Your task to perform on an android device: Open Youtube and go to "Your channel" Image 0: 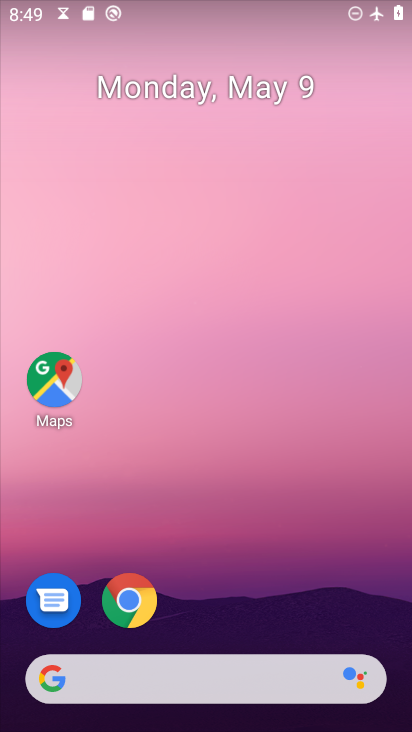
Step 0: drag from (246, 547) to (245, 31)
Your task to perform on an android device: Open Youtube and go to "Your channel" Image 1: 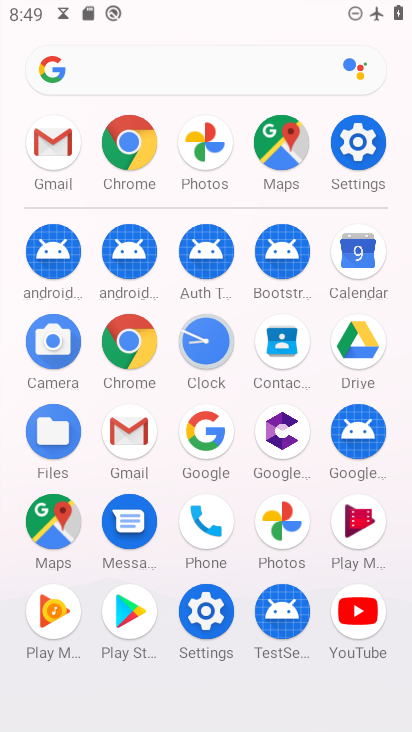
Step 1: click (353, 611)
Your task to perform on an android device: Open Youtube and go to "Your channel" Image 2: 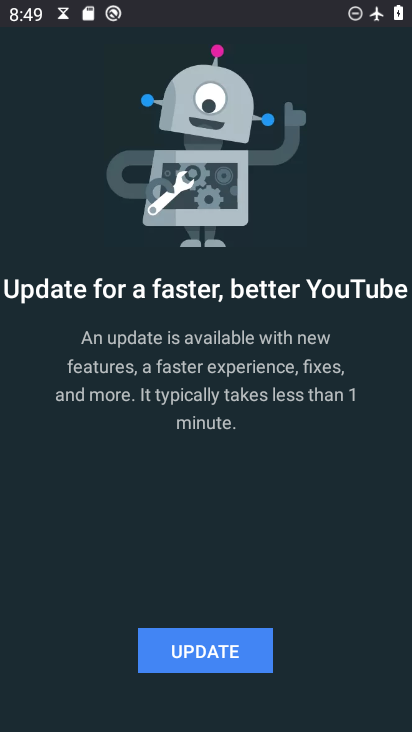
Step 2: click (264, 642)
Your task to perform on an android device: Open Youtube and go to "Your channel" Image 3: 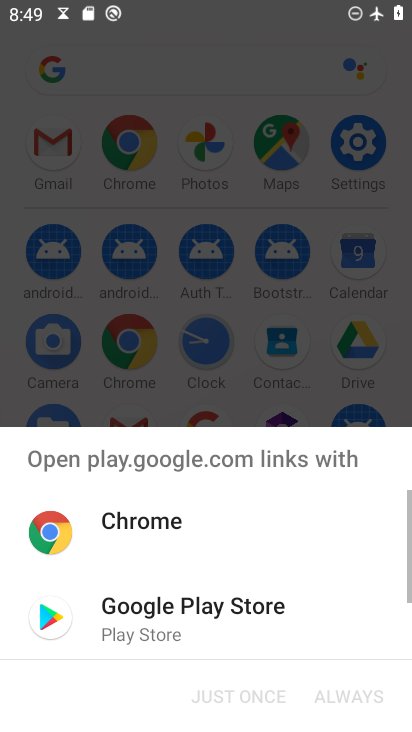
Step 3: click (199, 616)
Your task to perform on an android device: Open Youtube and go to "Your channel" Image 4: 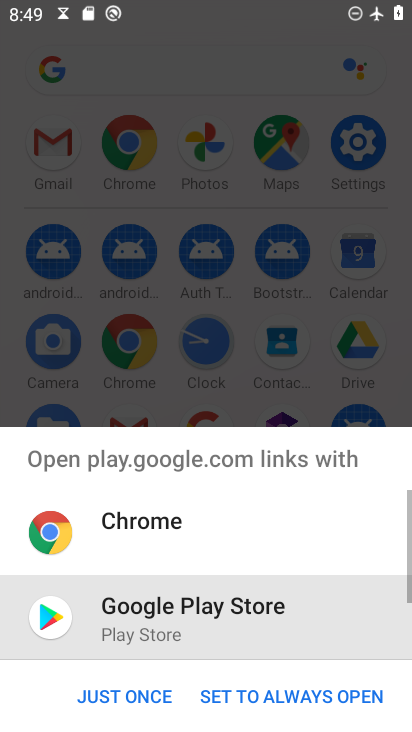
Step 4: click (124, 701)
Your task to perform on an android device: Open Youtube and go to "Your channel" Image 5: 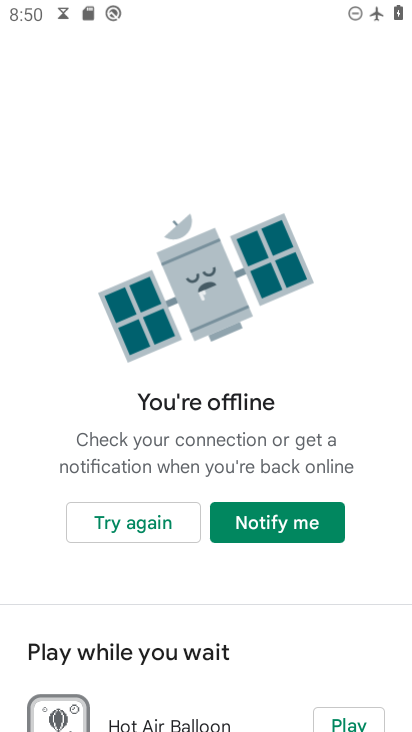
Step 5: task complete